Your task to perform on an android device: turn on showing notifications on the lock screen Image 0: 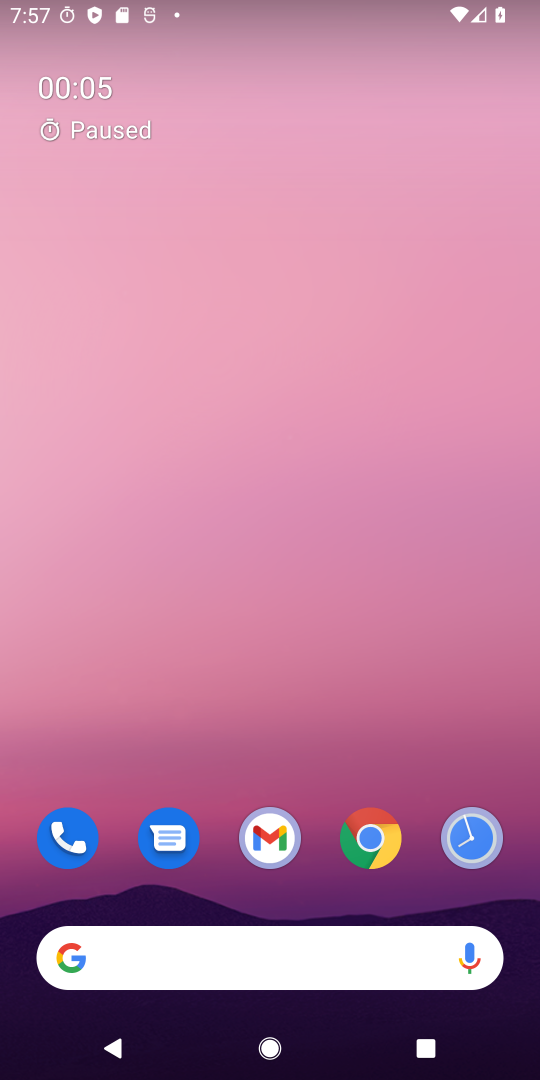
Step 0: click (237, 870)
Your task to perform on an android device: turn on showing notifications on the lock screen Image 1: 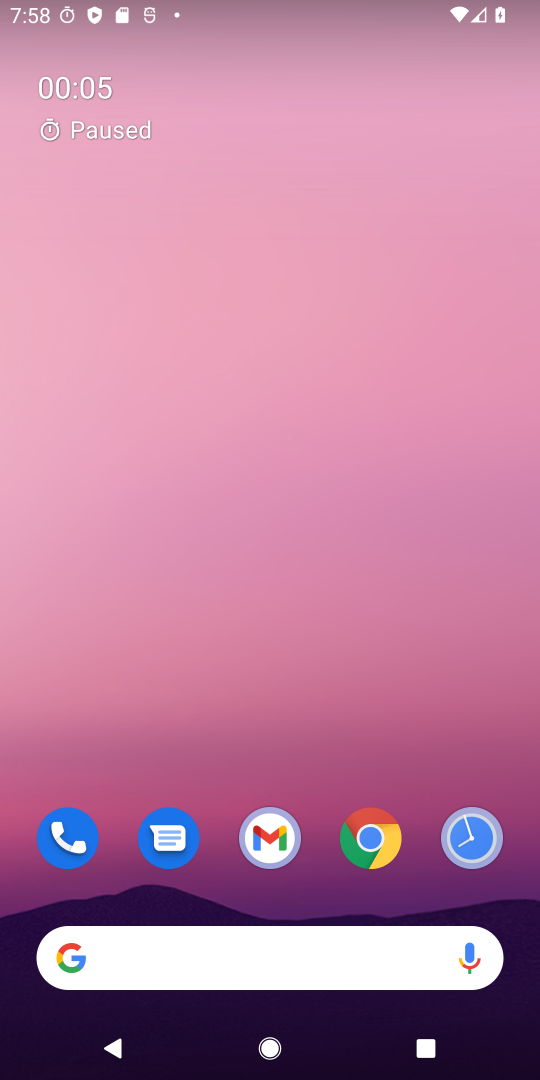
Step 1: click (222, 370)
Your task to perform on an android device: turn on showing notifications on the lock screen Image 2: 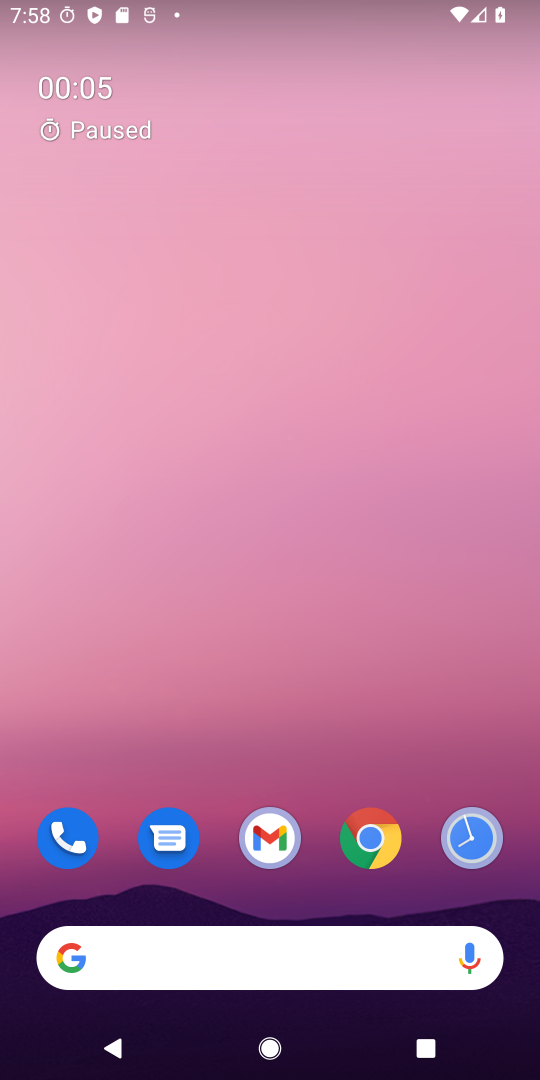
Step 2: drag from (257, 907) to (241, 501)
Your task to perform on an android device: turn on showing notifications on the lock screen Image 3: 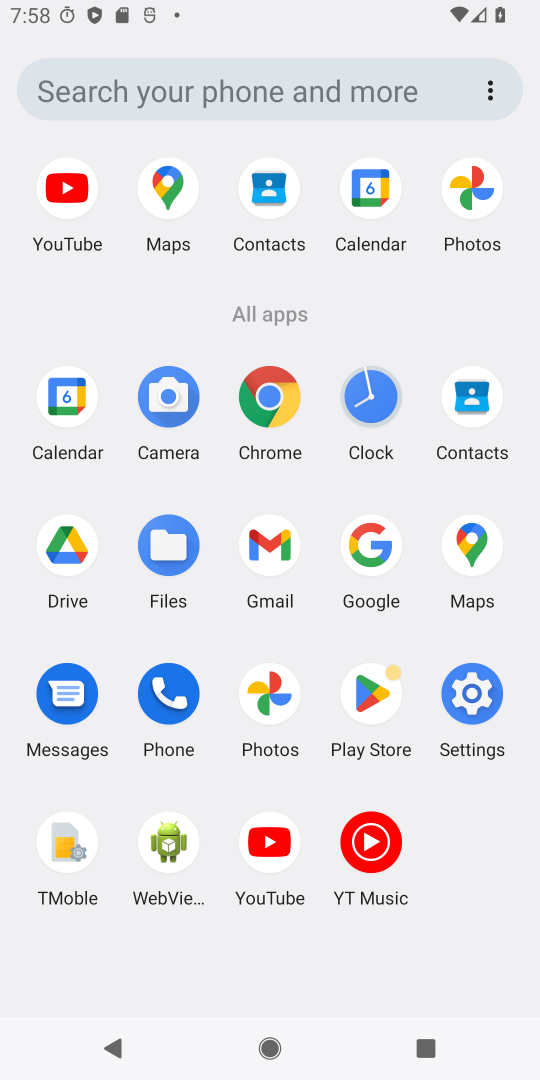
Step 3: click (462, 704)
Your task to perform on an android device: turn on showing notifications on the lock screen Image 4: 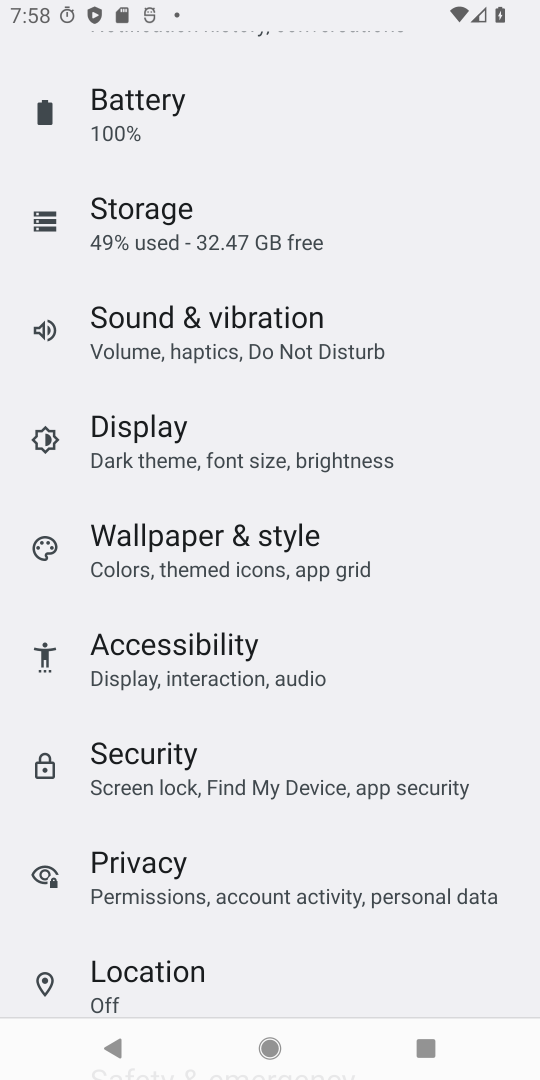
Step 4: drag from (286, 391) to (238, 625)
Your task to perform on an android device: turn on showing notifications on the lock screen Image 5: 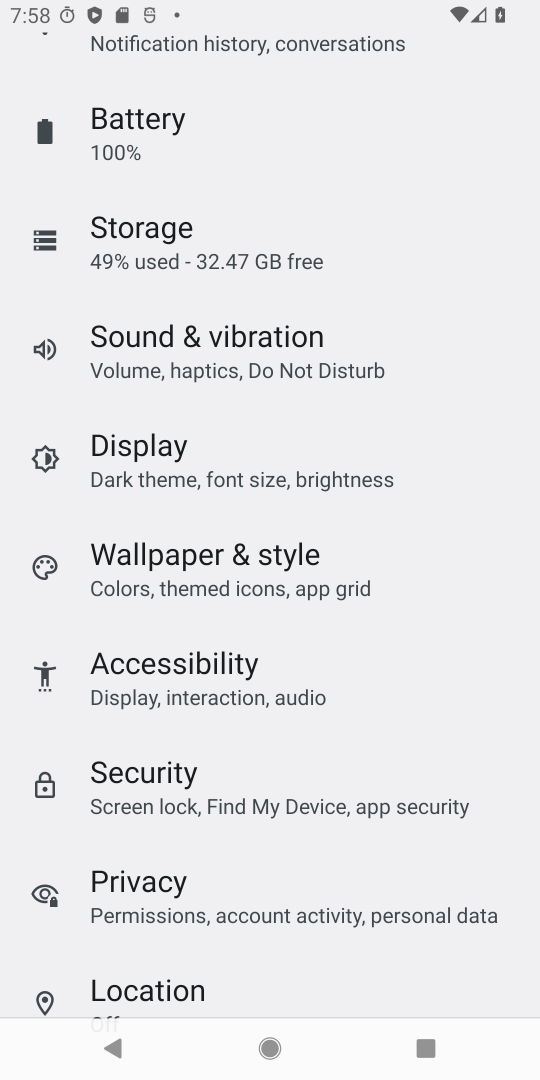
Step 5: drag from (269, 237) to (188, 851)
Your task to perform on an android device: turn on showing notifications on the lock screen Image 6: 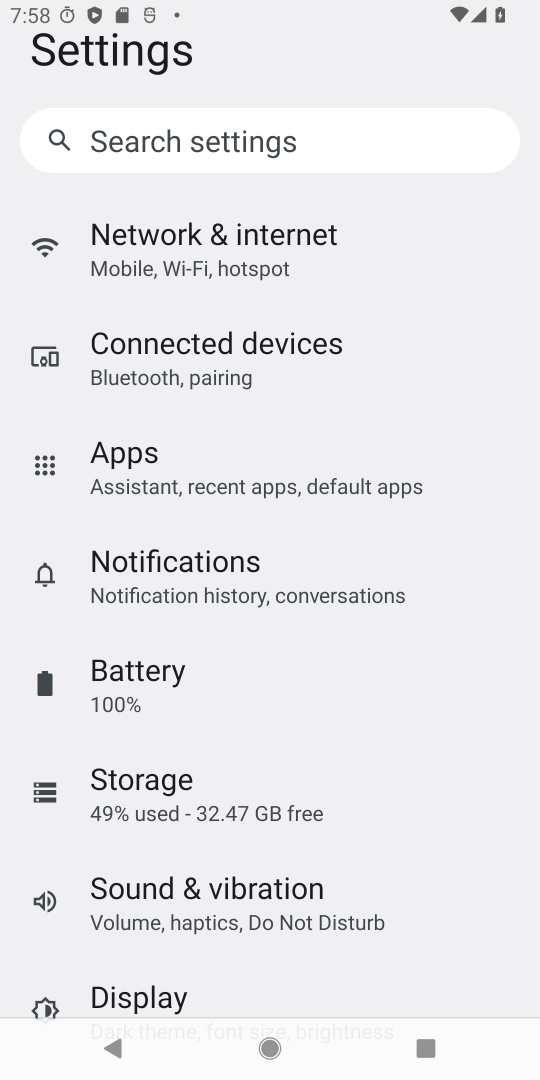
Step 6: click (200, 590)
Your task to perform on an android device: turn on showing notifications on the lock screen Image 7: 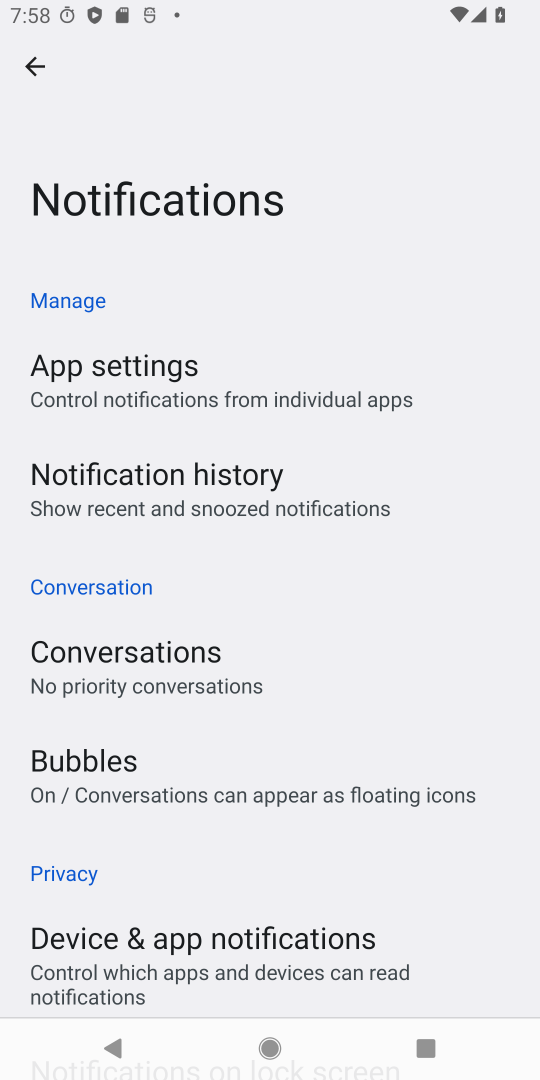
Step 7: drag from (176, 884) to (177, 566)
Your task to perform on an android device: turn on showing notifications on the lock screen Image 8: 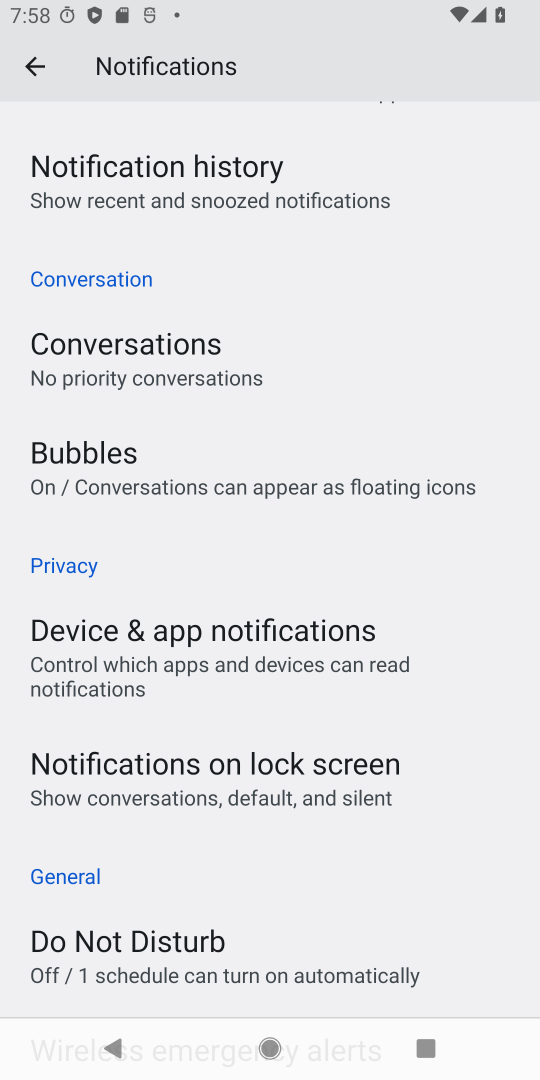
Step 8: click (196, 542)
Your task to perform on an android device: turn on showing notifications on the lock screen Image 9: 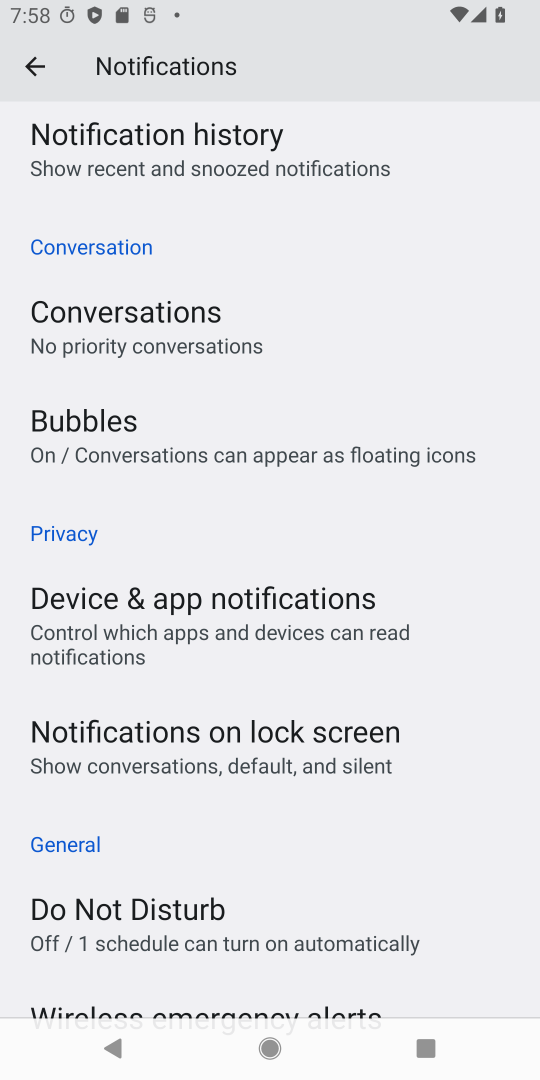
Step 9: click (191, 758)
Your task to perform on an android device: turn on showing notifications on the lock screen Image 10: 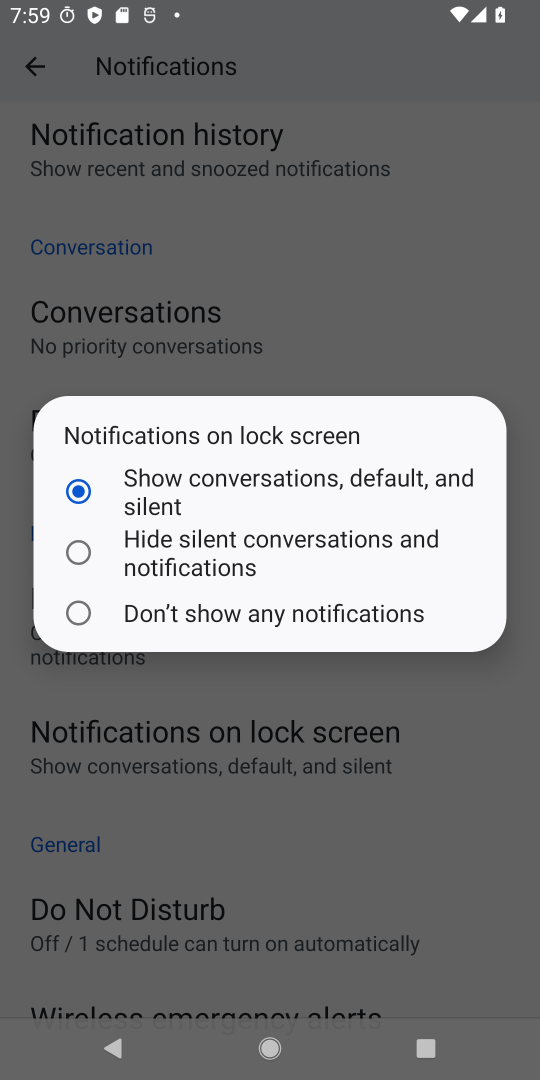
Step 10: task complete